Your task to perform on an android device: What is the recent news? Image 0: 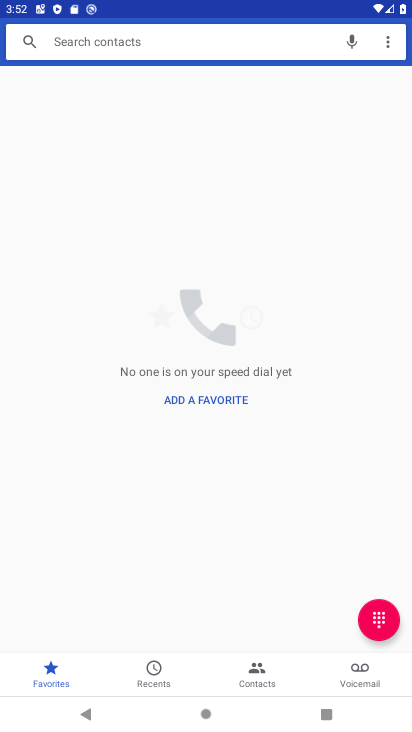
Step 0: press back button
Your task to perform on an android device: What is the recent news? Image 1: 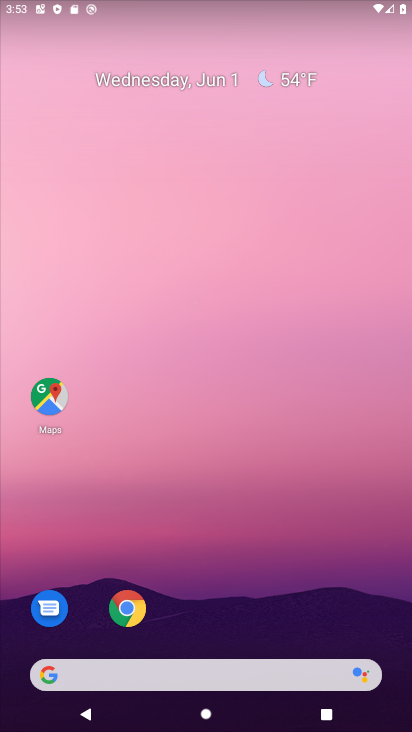
Step 1: click (171, 673)
Your task to perform on an android device: What is the recent news? Image 2: 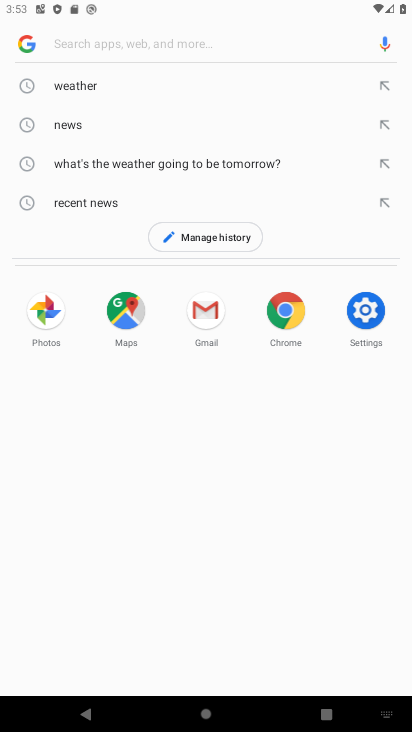
Step 2: click (76, 210)
Your task to perform on an android device: What is the recent news? Image 3: 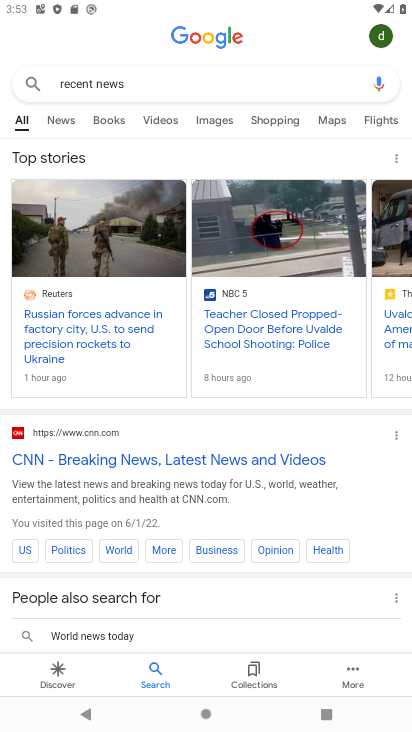
Step 3: task complete